Your task to perform on an android device: add a contact in the contacts app Image 0: 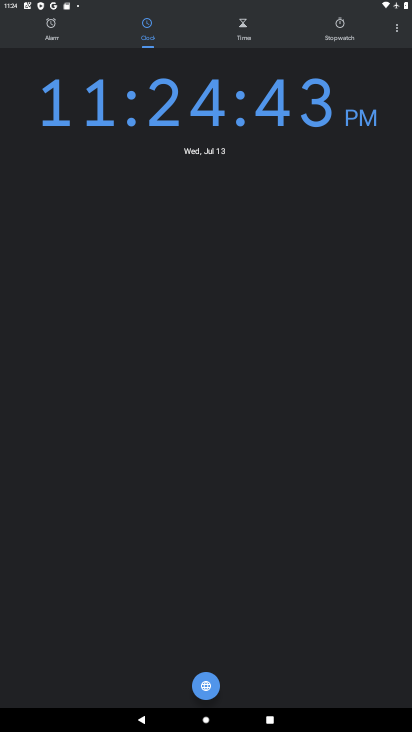
Step 0: press home button
Your task to perform on an android device: add a contact in the contacts app Image 1: 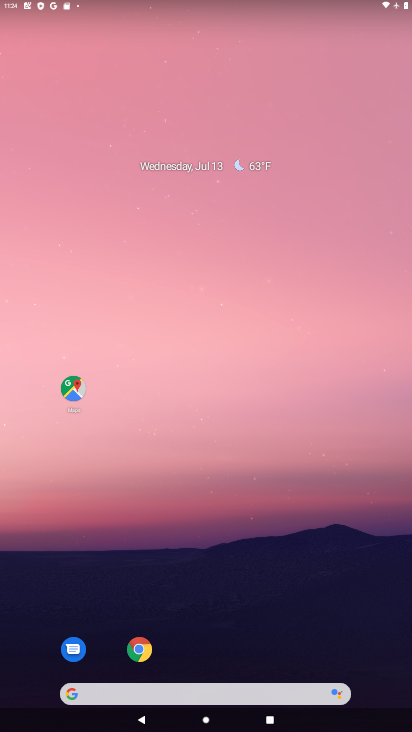
Step 1: drag from (263, 581) to (260, 208)
Your task to perform on an android device: add a contact in the contacts app Image 2: 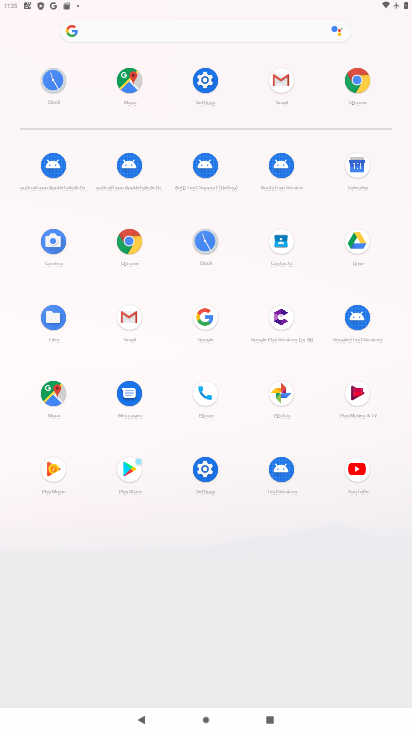
Step 2: click (199, 388)
Your task to perform on an android device: add a contact in the contacts app Image 3: 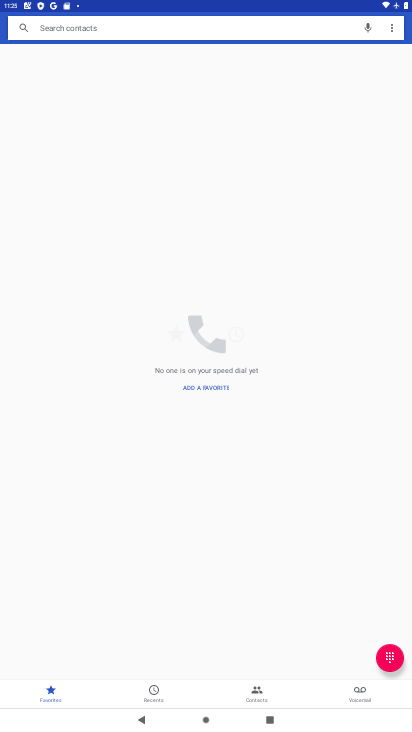
Step 3: click (187, 390)
Your task to perform on an android device: add a contact in the contacts app Image 4: 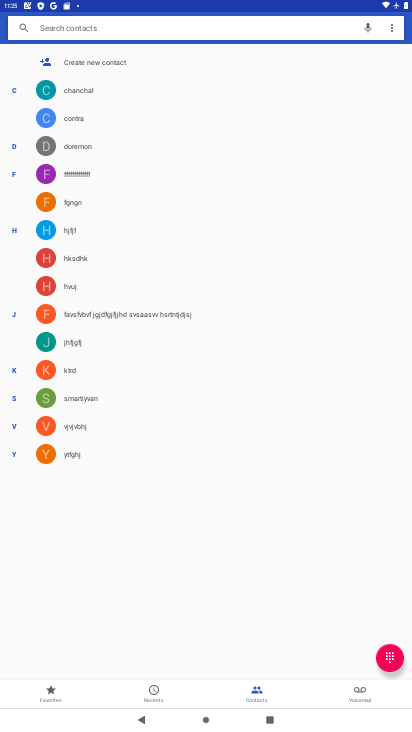
Step 4: click (116, 58)
Your task to perform on an android device: add a contact in the contacts app Image 5: 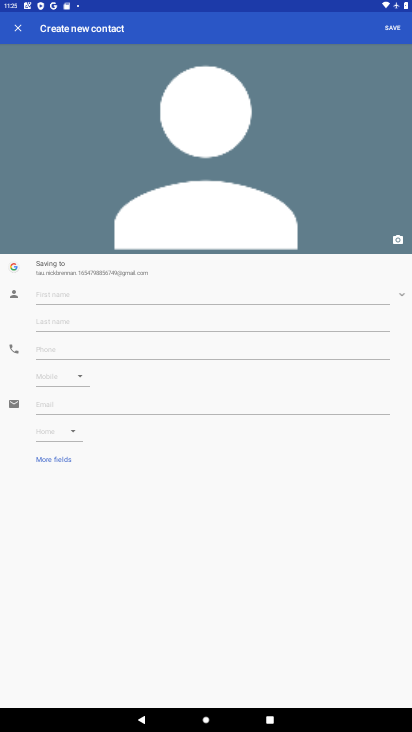
Step 5: click (107, 287)
Your task to perform on an android device: add a contact in the contacts app Image 6: 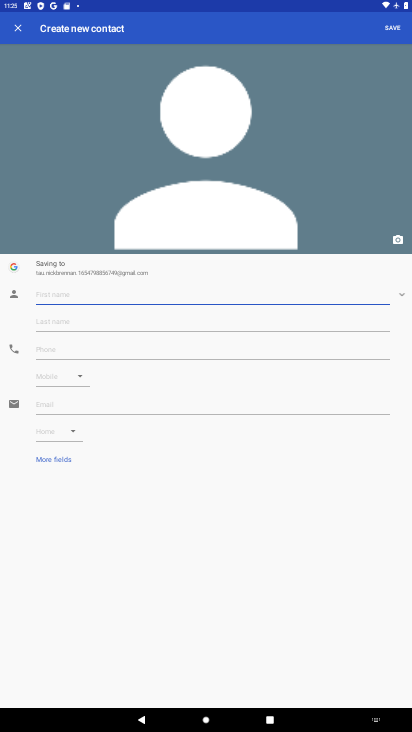
Step 6: type "anuj"
Your task to perform on an android device: add a contact in the contacts app Image 7: 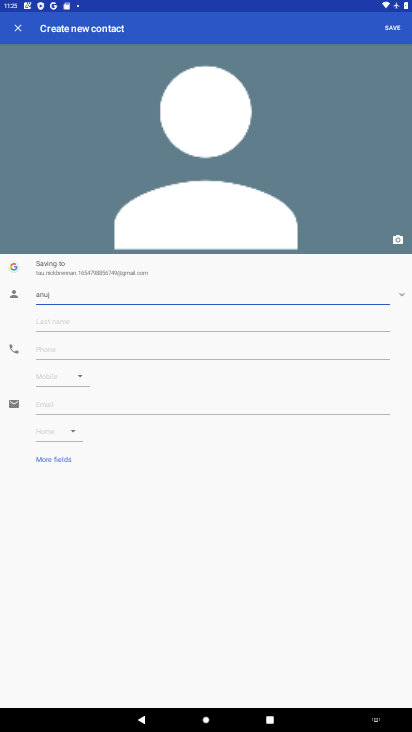
Step 7: click (91, 348)
Your task to perform on an android device: add a contact in the contacts app Image 8: 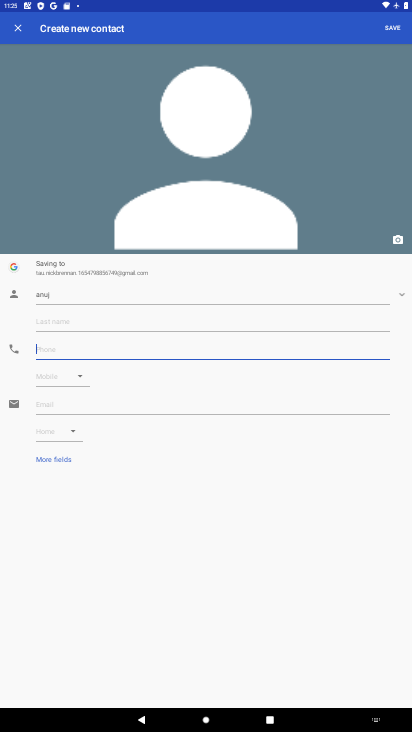
Step 8: type "123456789"
Your task to perform on an android device: add a contact in the contacts app Image 9: 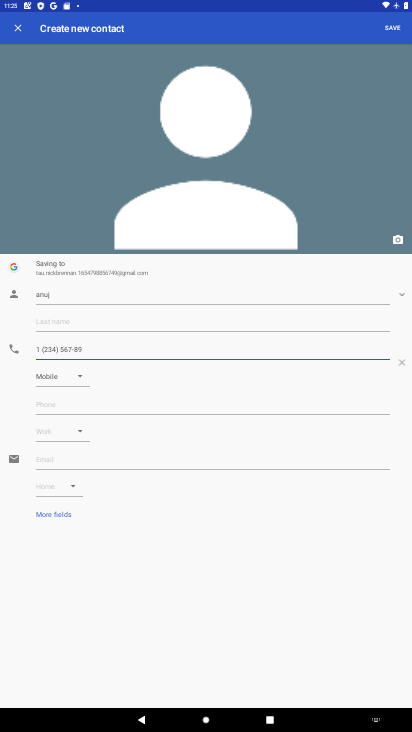
Step 9: click (394, 30)
Your task to perform on an android device: add a contact in the contacts app Image 10: 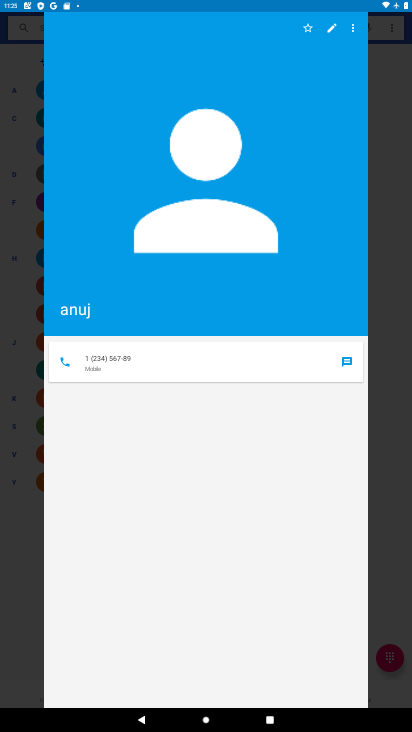
Step 10: task complete